Your task to perform on an android device: see tabs open on other devices in the chrome app Image 0: 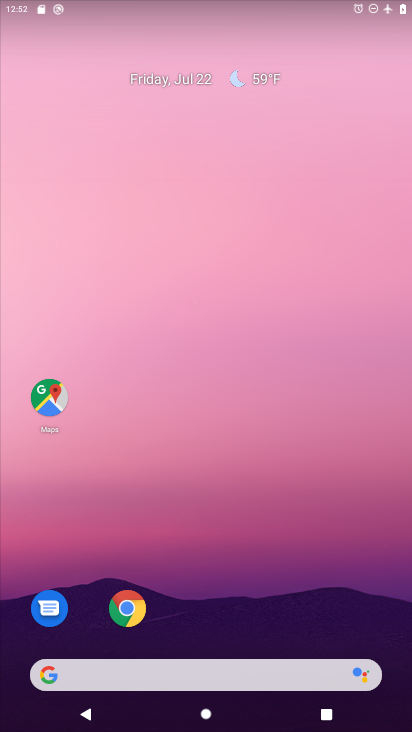
Step 0: drag from (392, 636) to (108, 24)
Your task to perform on an android device: see tabs open on other devices in the chrome app Image 1: 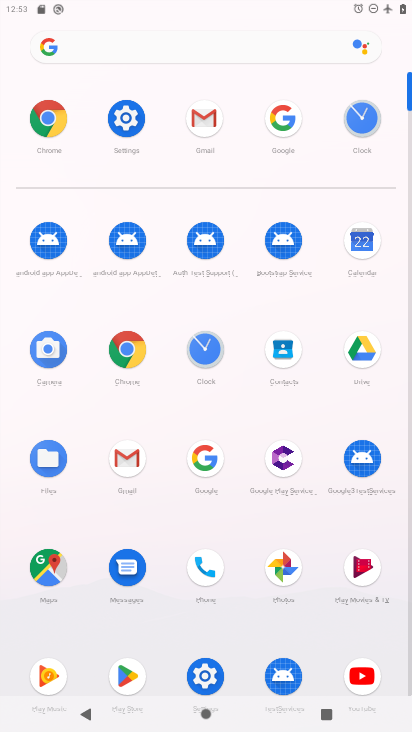
Step 1: click (120, 355)
Your task to perform on an android device: see tabs open on other devices in the chrome app Image 2: 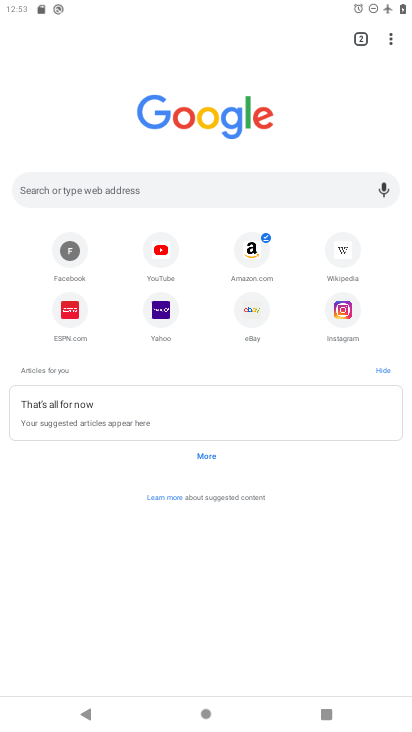
Step 2: task complete